Your task to perform on an android device: Go to battery settings Image 0: 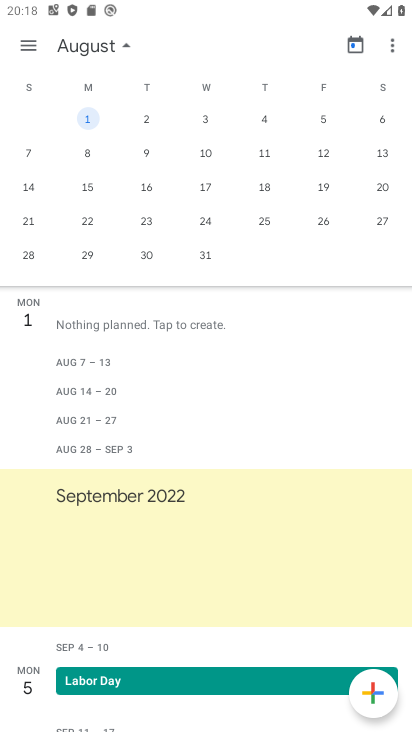
Step 0: press home button
Your task to perform on an android device: Go to battery settings Image 1: 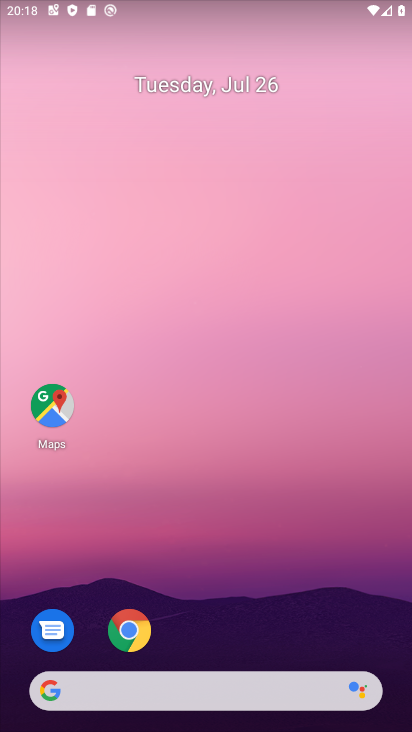
Step 1: drag from (347, 636) to (335, 180)
Your task to perform on an android device: Go to battery settings Image 2: 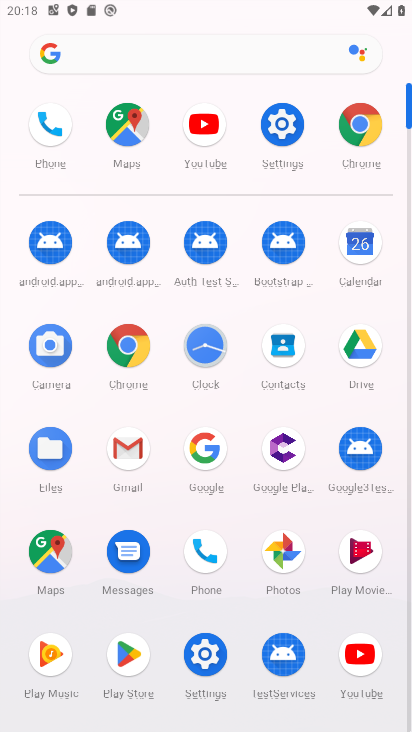
Step 2: click (282, 131)
Your task to perform on an android device: Go to battery settings Image 3: 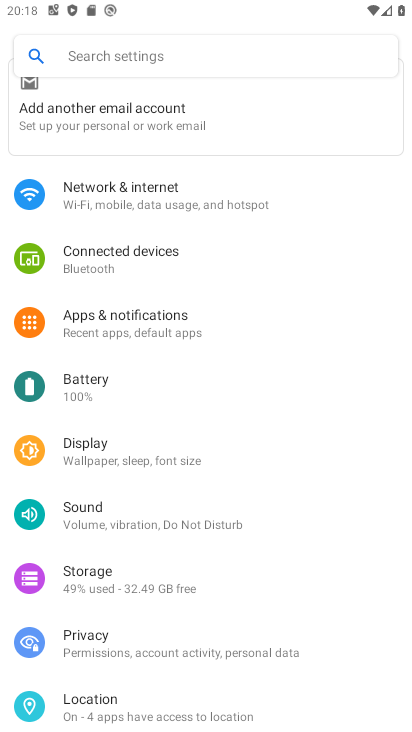
Step 3: click (108, 379)
Your task to perform on an android device: Go to battery settings Image 4: 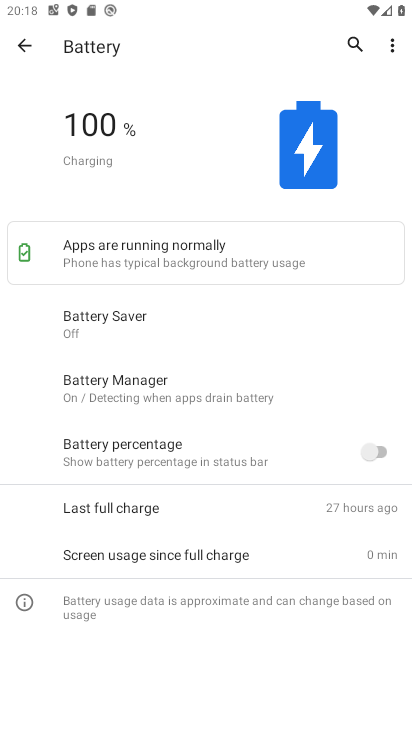
Step 4: task complete